Your task to perform on an android device: Open network settings Image 0: 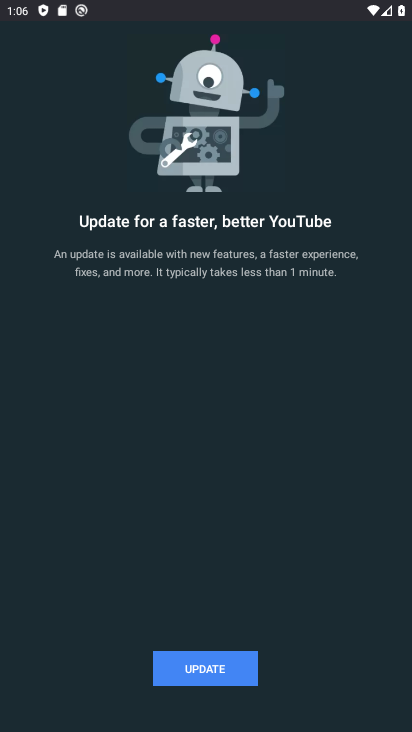
Step 0: press home button
Your task to perform on an android device: Open network settings Image 1: 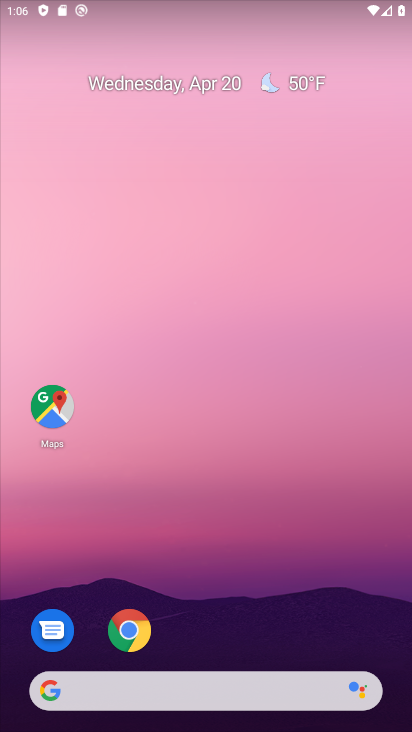
Step 1: drag from (256, 582) to (228, 146)
Your task to perform on an android device: Open network settings Image 2: 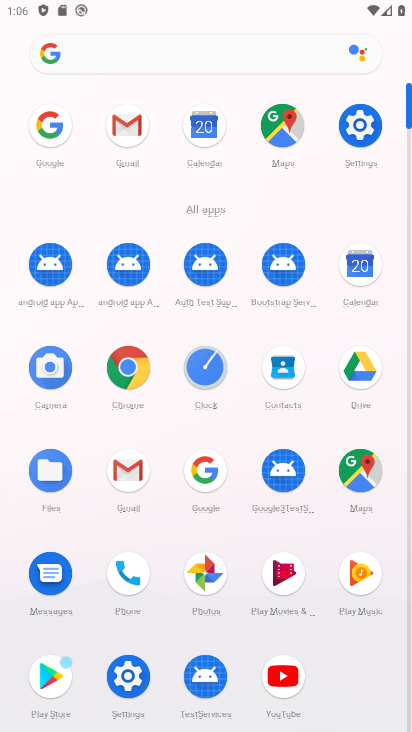
Step 2: click (362, 131)
Your task to perform on an android device: Open network settings Image 3: 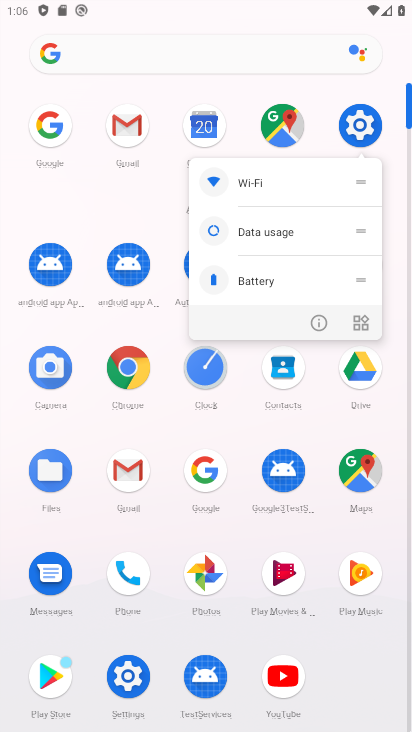
Step 3: click (348, 125)
Your task to perform on an android device: Open network settings Image 4: 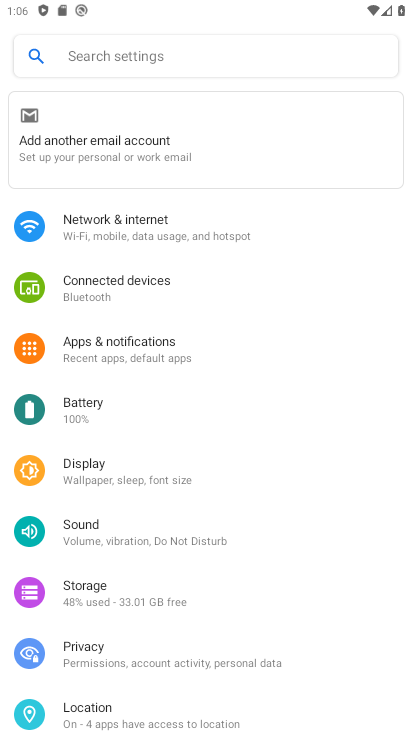
Step 4: click (131, 216)
Your task to perform on an android device: Open network settings Image 5: 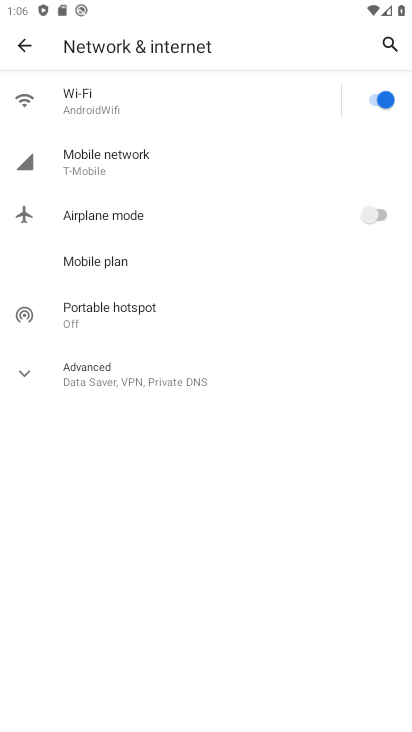
Step 5: click (134, 163)
Your task to perform on an android device: Open network settings Image 6: 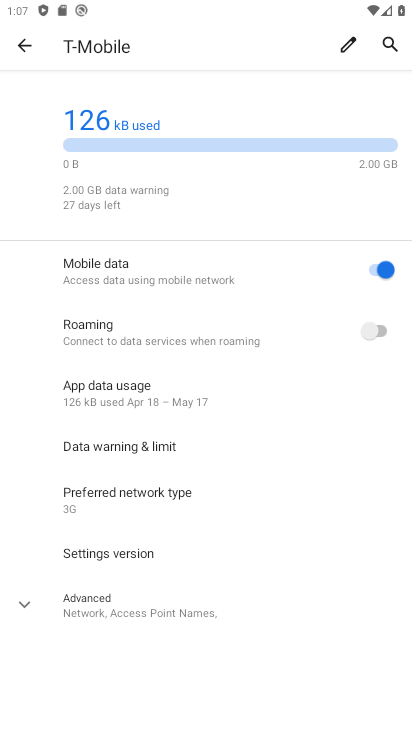
Step 6: task complete